Your task to perform on an android device: turn off sleep mode Image 0: 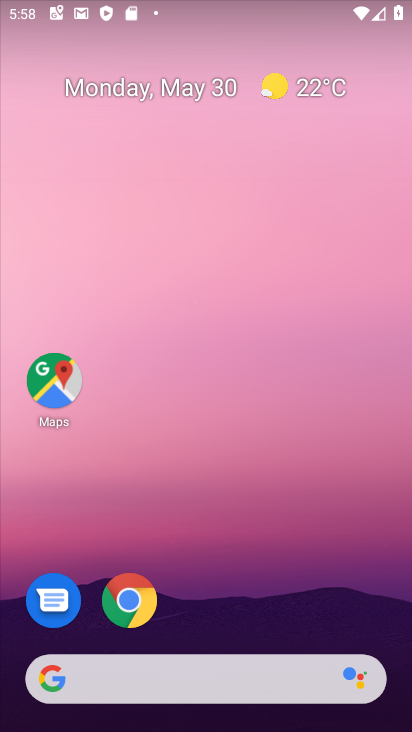
Step 0: press home button
Your task to perform on an android device: turn off sleep mode Image 1: 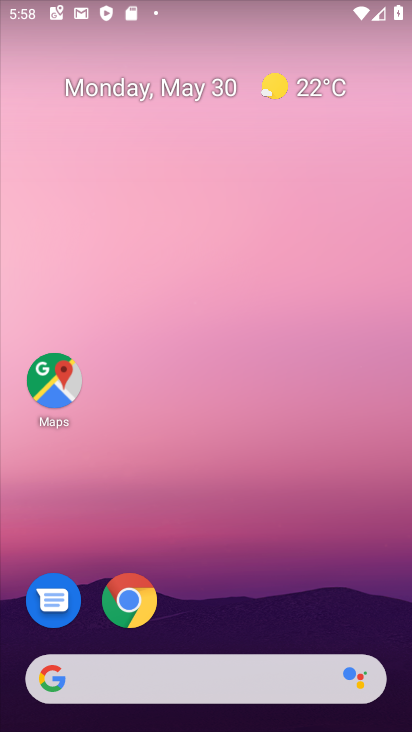
Step 1: drag from (236, 622) to (245, 153)
Your task to perform on an android device: turn off sleep mode Image 2: 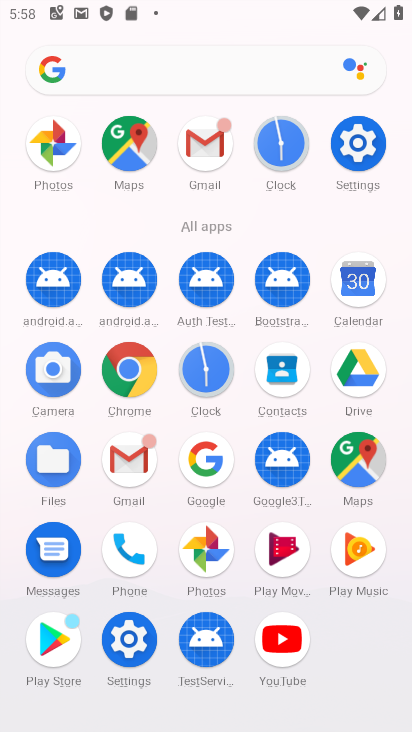
Step 2: click (376, 148)
Your task to perform on an android device: turn off sleep mode Image 3: 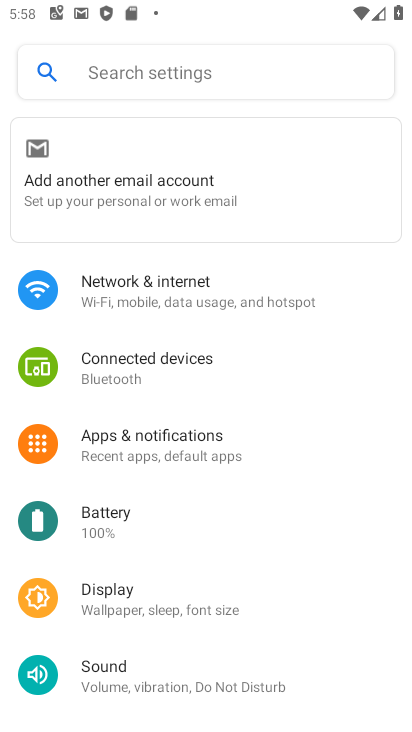
Step 3: click (142, 612)
Your task to perform on an android device: turn off sleep mode Image 4: 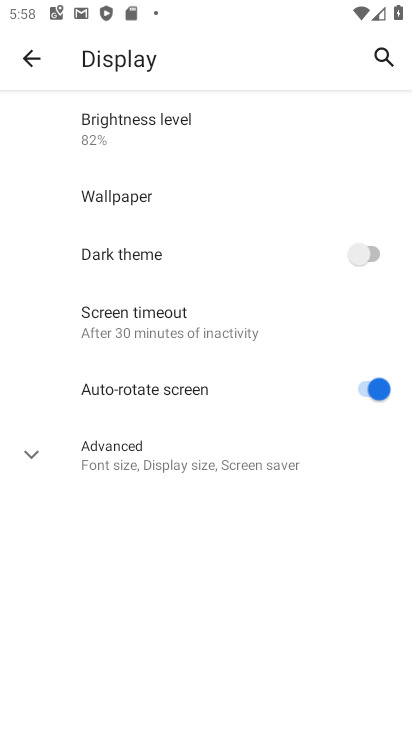
Step 4: task complete